Your task to perform on an android device: Go to ESPN.com Image 0: 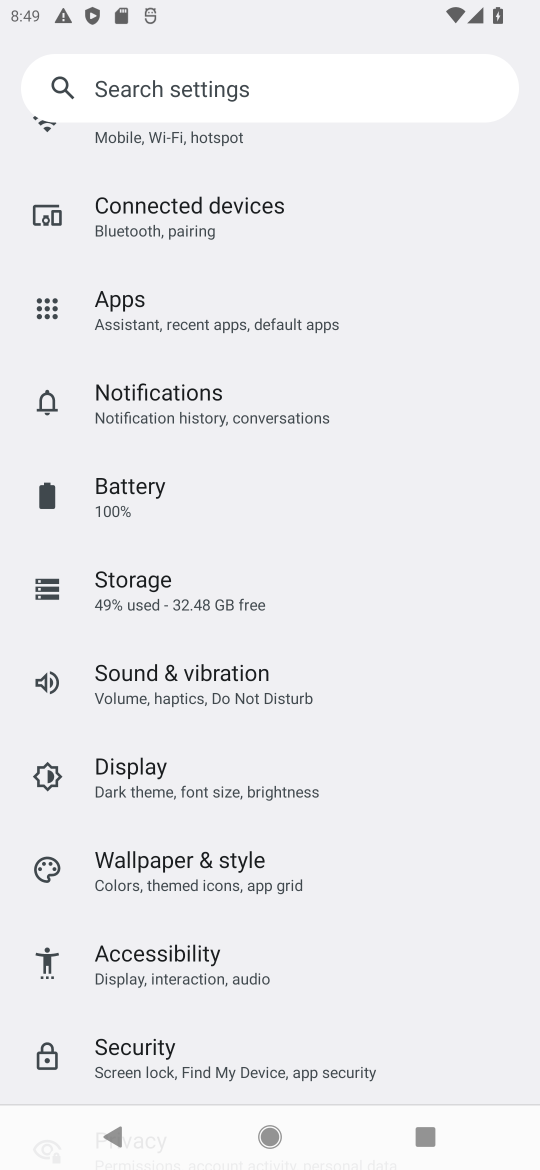
Step 0: press home button
Your task to perform on an android device: Go to ESPN.com Image 1: 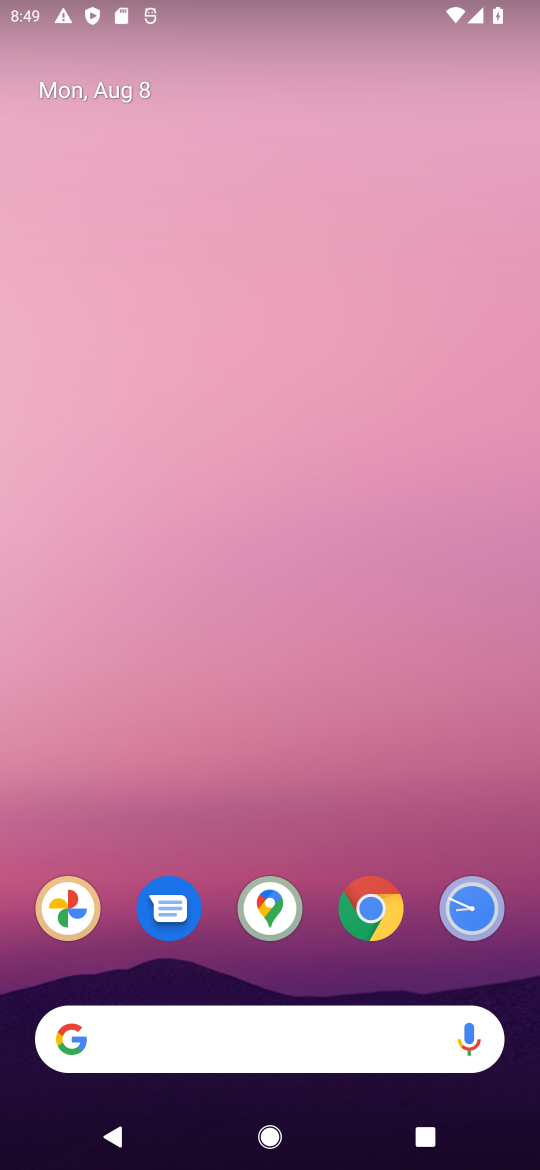
Step 1: click (360, 910)
Your task to perform on an android device: Go to ESPN.com Image 2: 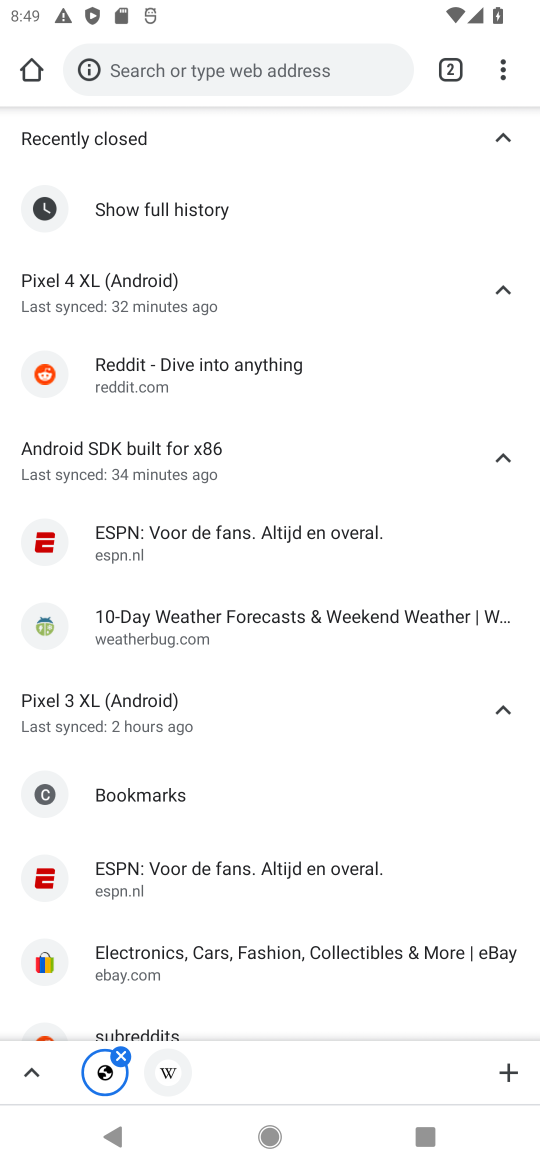
Step 2: click (462, 62)
Your task to perform on an android device: Go to ESPN.com Image 3: 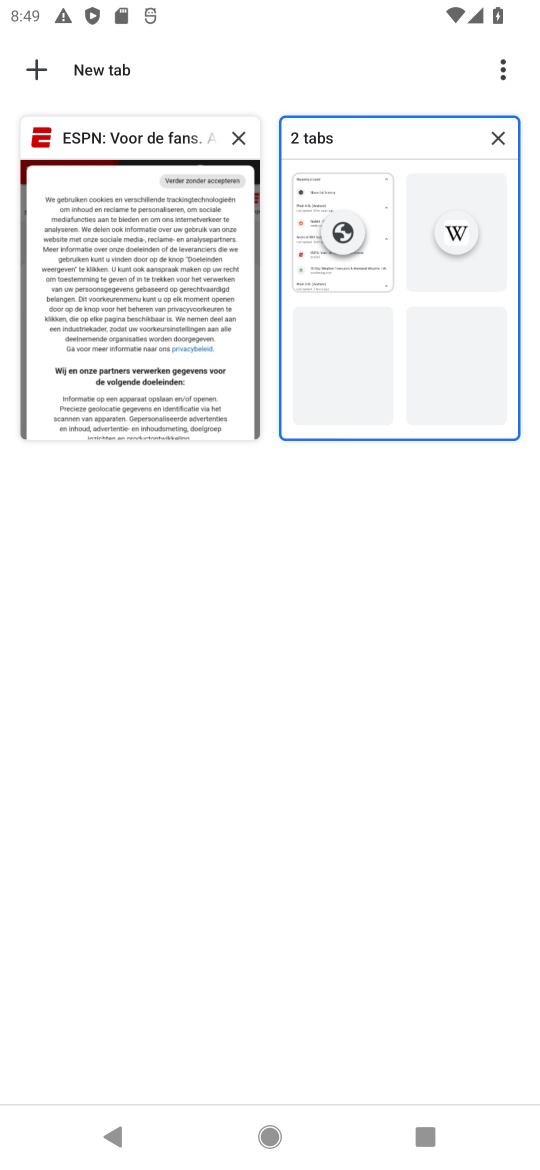
Step 3: click (80, 185)
Your task to perform on an android device: Go to ESPN.com Image 4: 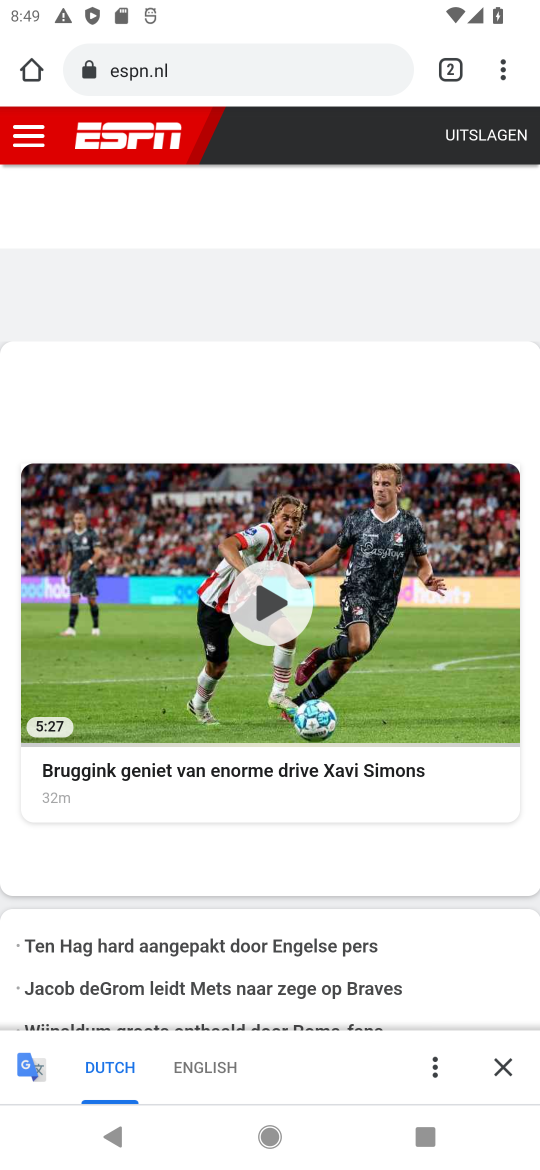
Step 4: task complete